Your task to perform on an android device: change notification settings in the gmail app Image 0: 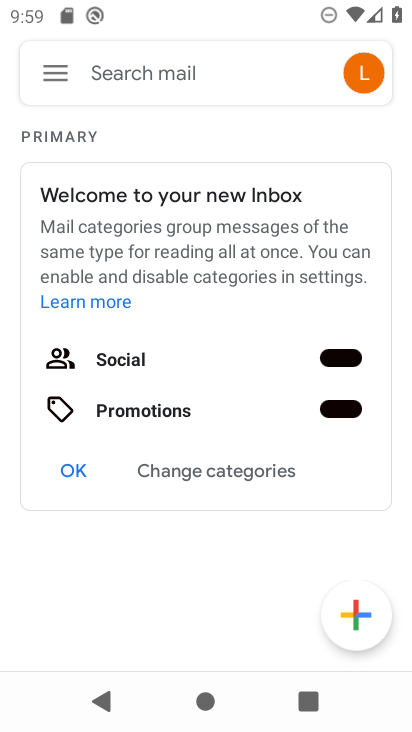
Step 0: press home button
Your task to perform on an android device: change notification settings in the gmail app Image 1: 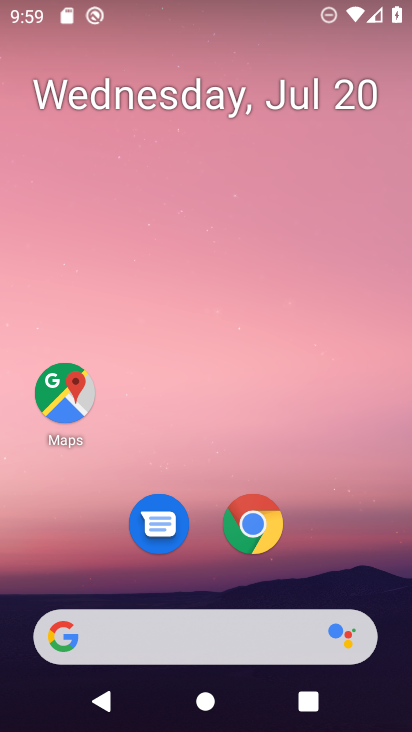
Step 1: drag from (224, 621) to (355, 148)
Your task to perform on an android device: change notification settings in the gmail app Image 2: 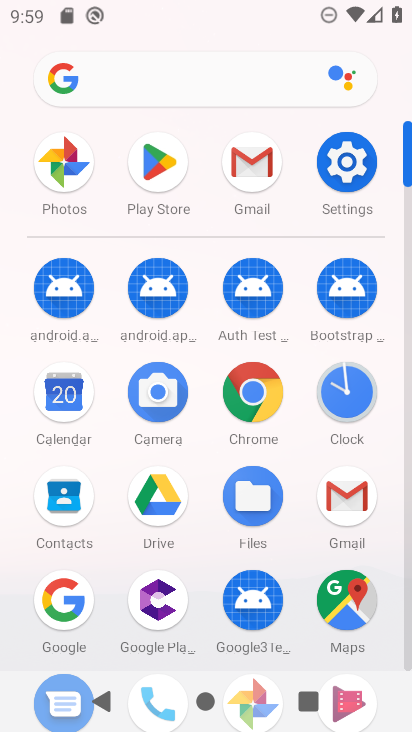
Step 2: click (254, 168)
Your task to perform on an android device: change notification settings in the gmail app Image 3: 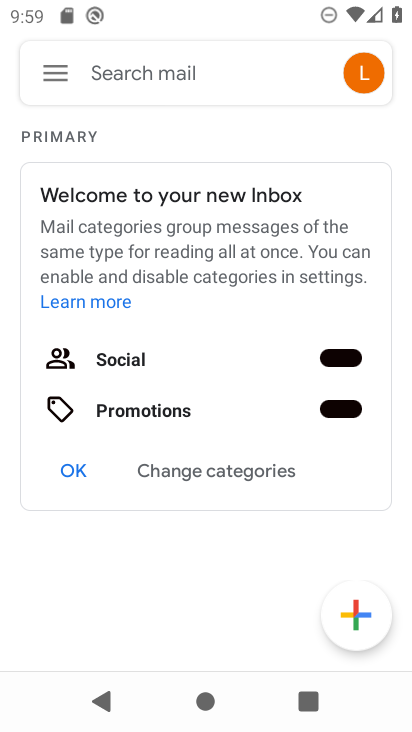
Step 3: click (55, 70)
Your task to perform on an android device: change notification settings in the gmail app Image 4: 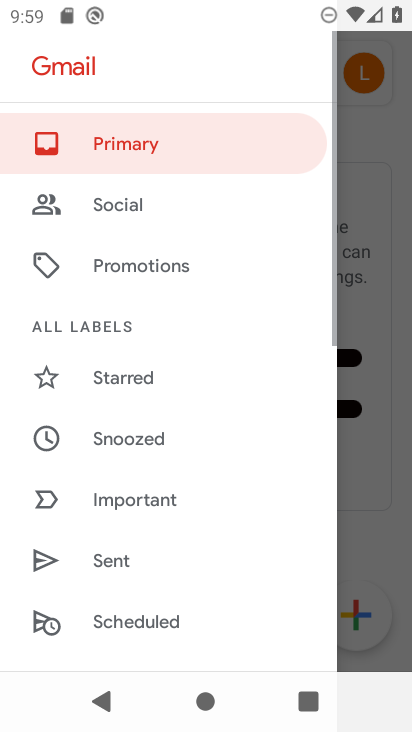
Step 4: drag from (169, 569) to (258, 184)
Your task to perform on an android device: change notification settings in the gmail app Image 5: 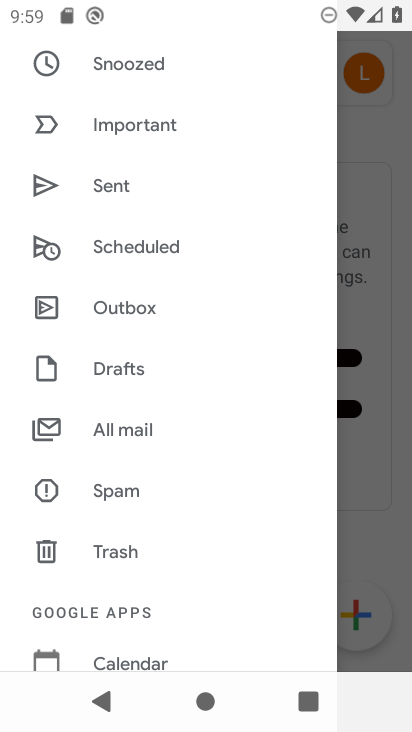
Step 5: click (282, 238)
Your task to perform on an android device: change notification settings in the gmail app Image 6: 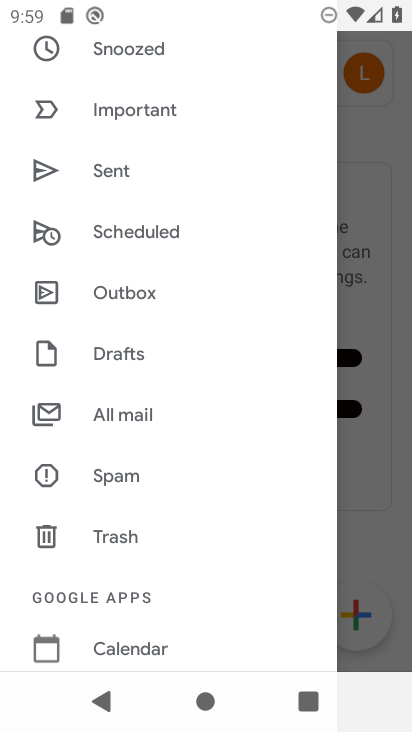
Step 6: drag from (191, 542) to (324, 128)
Your task to perform on an android device: change notification settings in the gmail app Image 7: 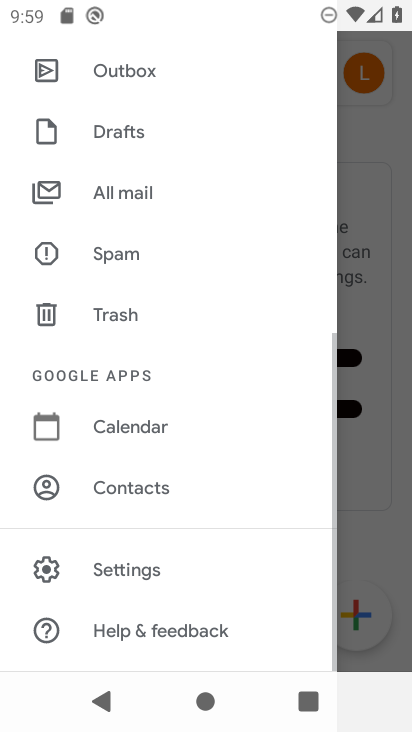
Step 7: click (125, 558)
Your task to perform on an android device: change notification settings in the gmail app Image 8: 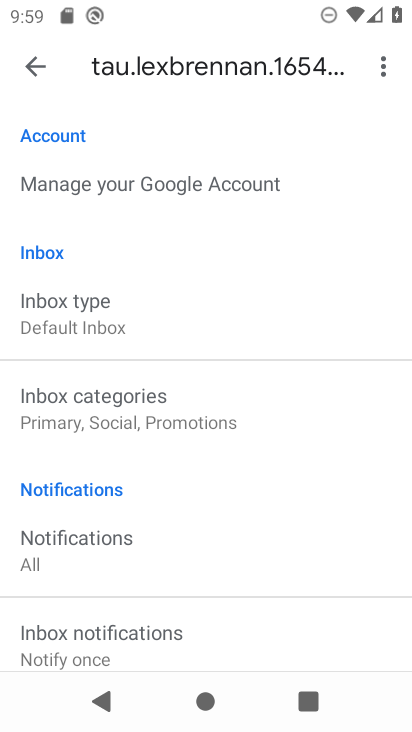
Step 8: click (102, 547)
Your task to perform on an android device: change notification settings in the gmail app Image 9: 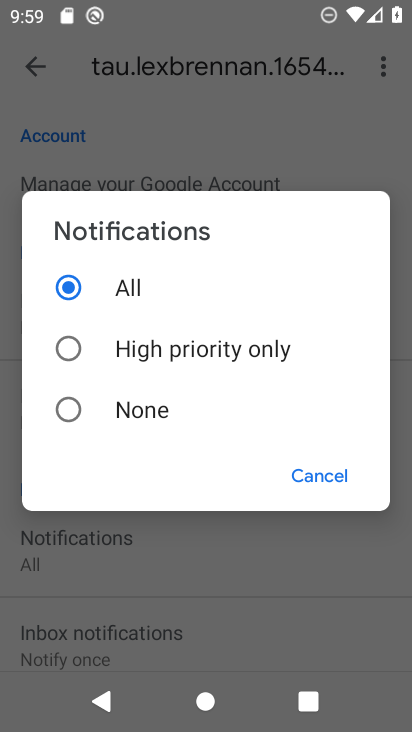
Step 9: click (69, 414)
Your task to perform on an android device: change notification settings in the gmail app Image 10: 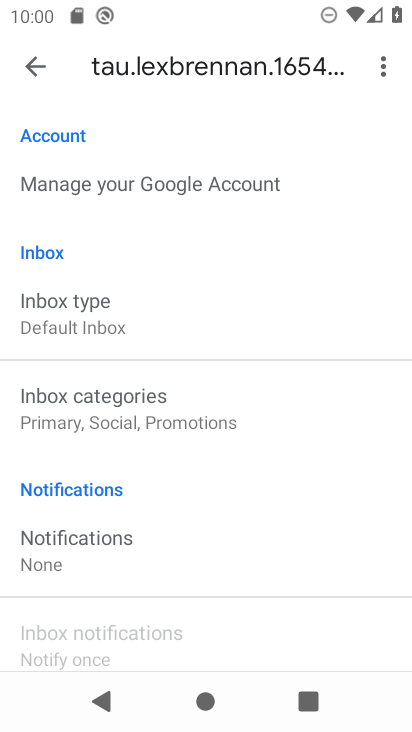
Step 10: task complete